Your task to perform on an android device: turn on translation in the chrome app Image 0: 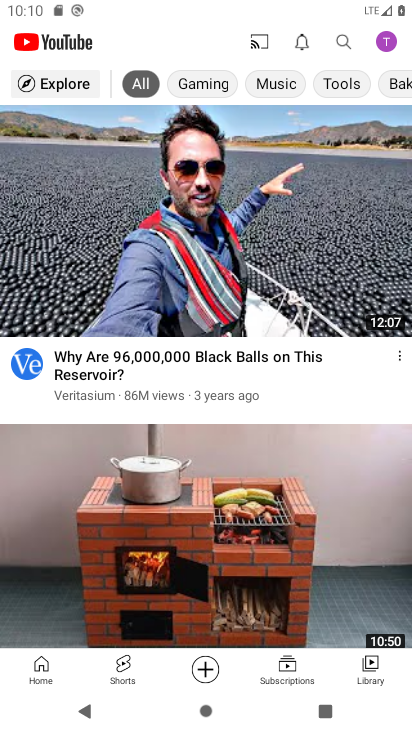
Step 0: press home button
Your task to perform on an android device: turn on translation in the chrome app Image 1: 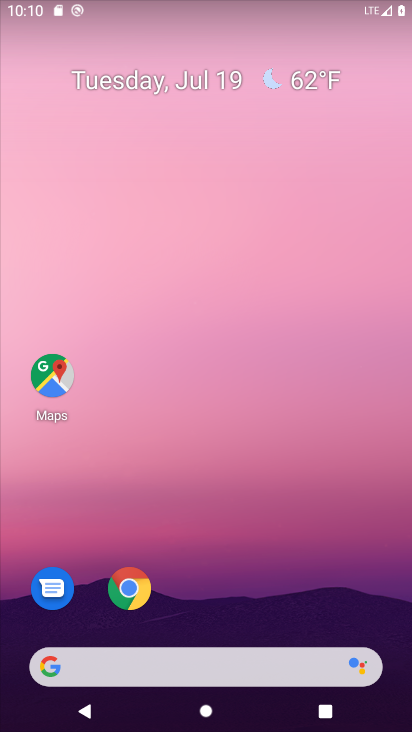
Step 1: click (134, 591)
Your task to perform on an android device: turn on translation in the chrome app Image 2: 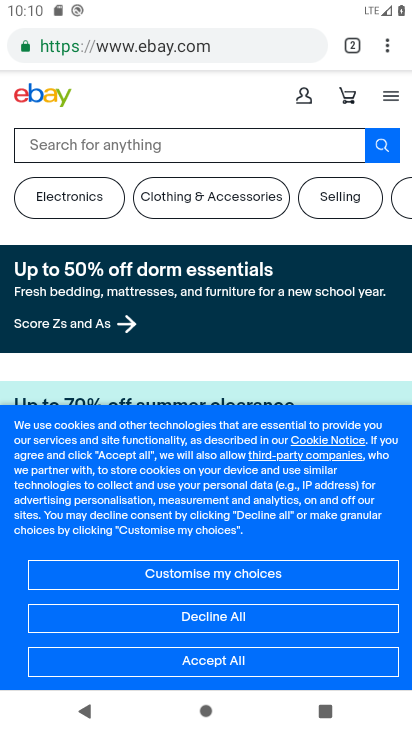
Step 2: click (384, 42)
Your task to perform on an android device: turn on translation in the chrome app Image 3: 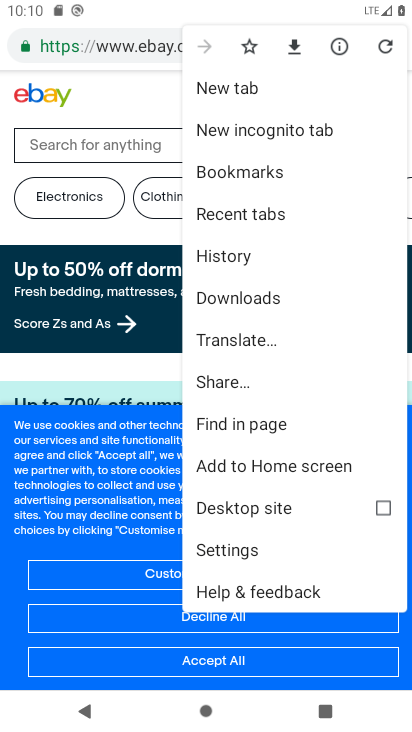
Step 3: click (225, 549)
Your task to perform on an android device: turn on translation in the chrome app Image 4: 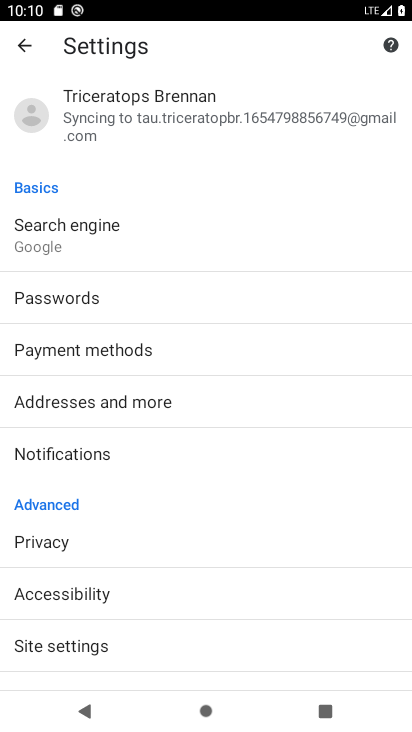
Step 4: drag from (146, 617) to (205, 331)
Your task to perform on an android device: turn on translation in the chrome app Image 5: 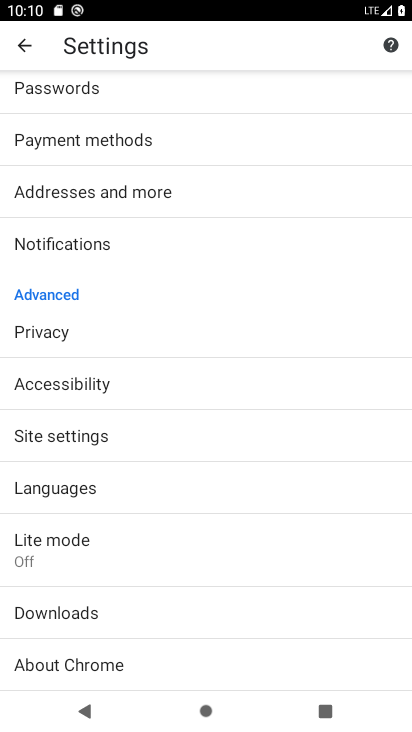
Step 5: click (73, 494)
Your task to perform on an android device: turn on translation in the chrome app Image 6: 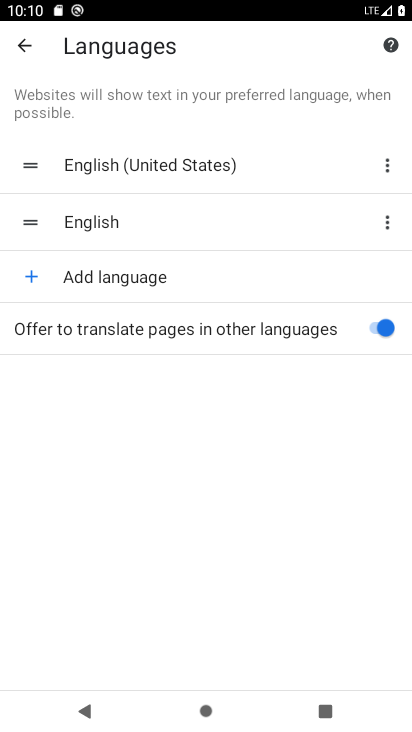
Step 6: task complete